Your task to perform on an android device: change the upload size in google photos Image 0: 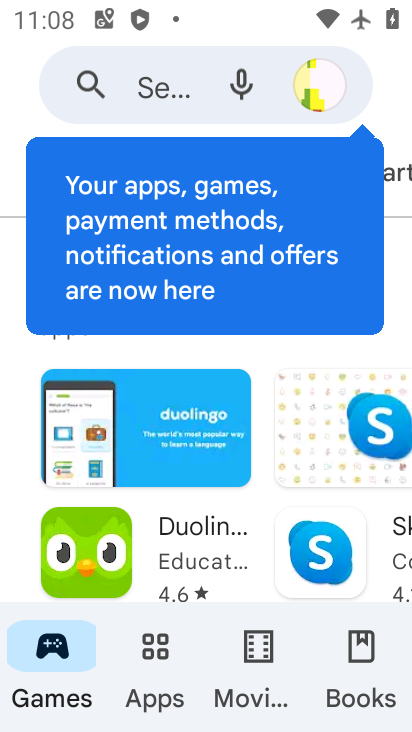
Step 0: press home button
Your task to perform on an android device: change the upload size in google photos Image 1: 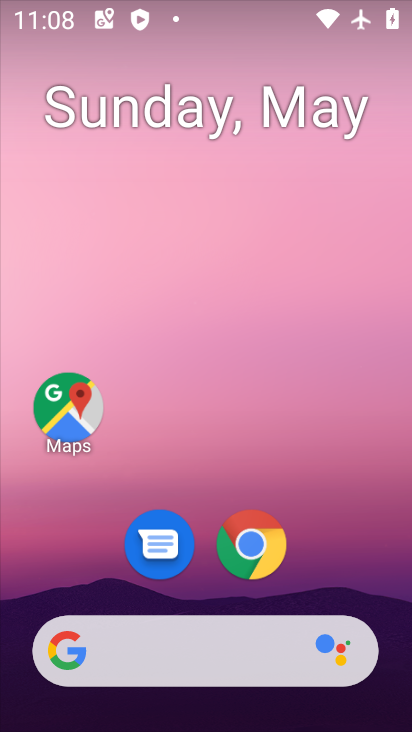
Step 1: drag from (324, 548) to (345, 176)
Your task to perform on an android device: change the upload size in google photos Image 2: 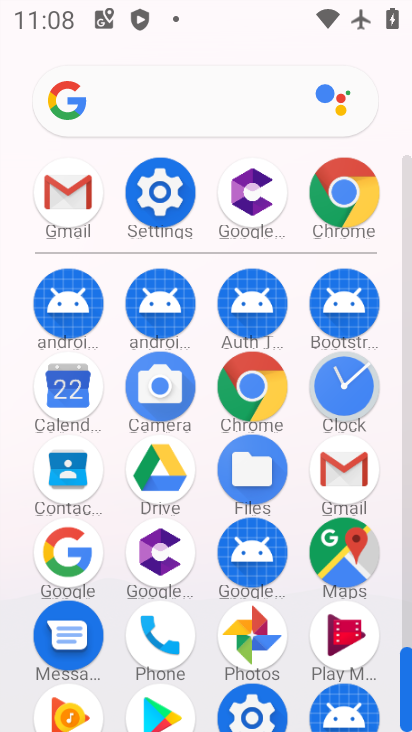
Step 2: click (237, 629)
Your task to perform on an android device: change the upload size in google photos Image 3: 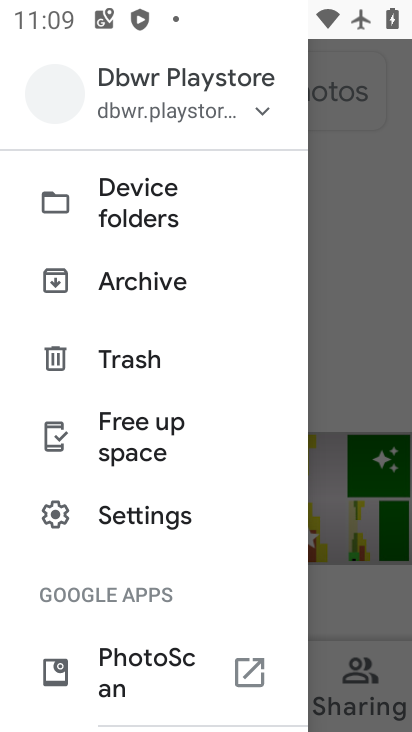
Step 3: click (131, 526)
Your task to perform on an android device: change the upload size in google photos Image 4: 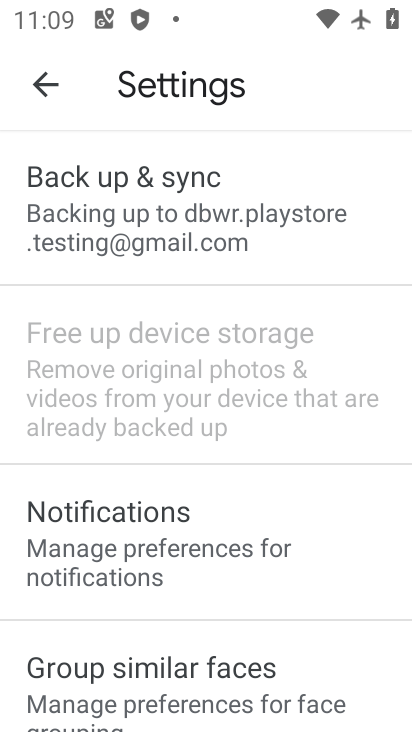
Step 4: click (71, 193)
Your task to perform on an android device: change the upload size in google photos Image 5: 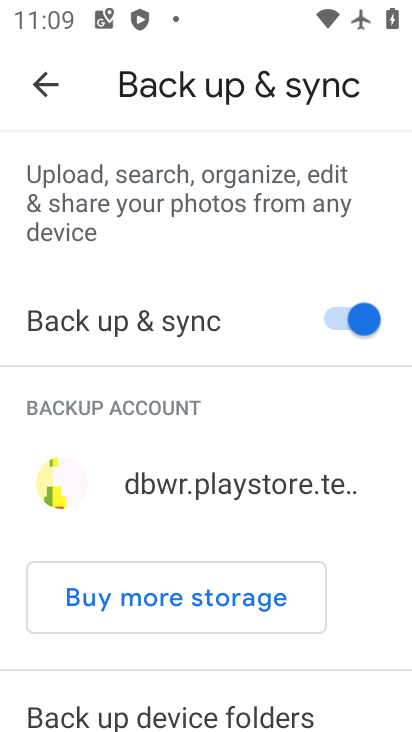
Step 5: drag from (314, 580) to (309, 386)
Your task to perform on an android device: change the upload size in google photos Image 6: 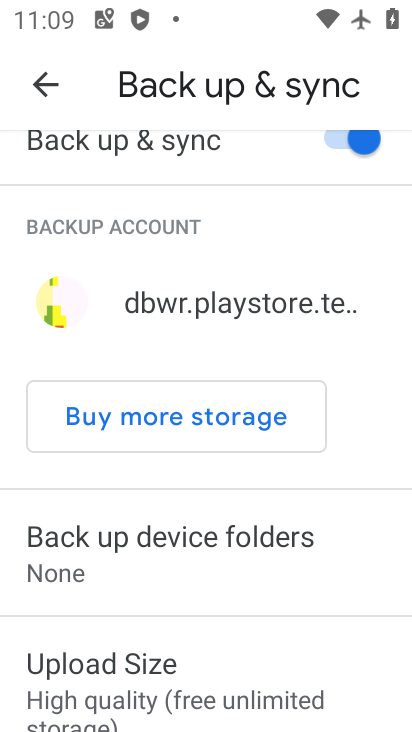
Step 6: click (183, 644)
Your task to perform on an android device: change the upload size in google photos Image 7: 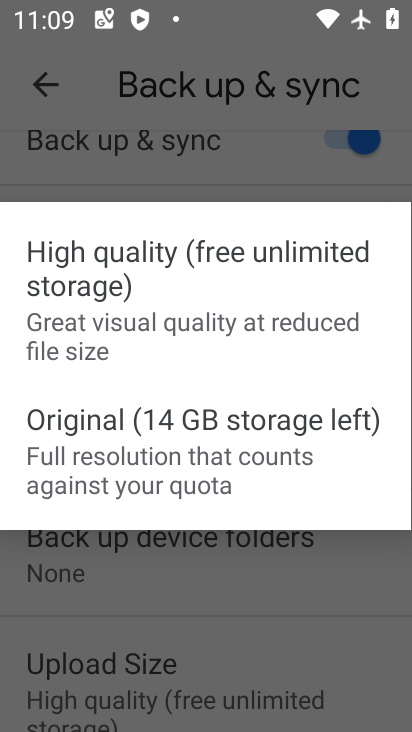
Step 7: click (160, 432)
Your task to perform on an android device: change the upload size in google photos Image 8: 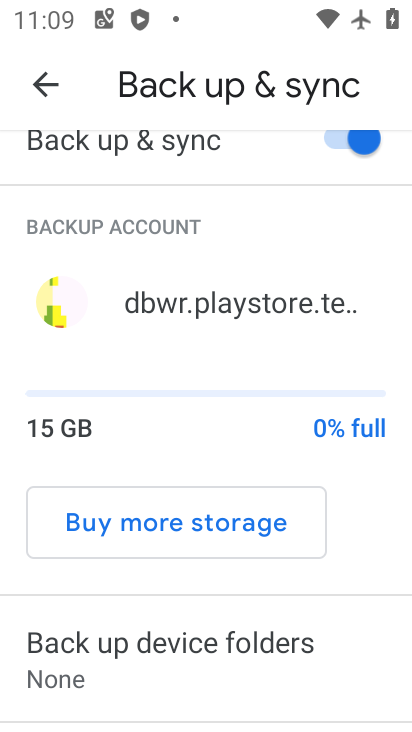
Step 8: task complete